Your task to perform on an android device: Go to privacy settings Image 0: 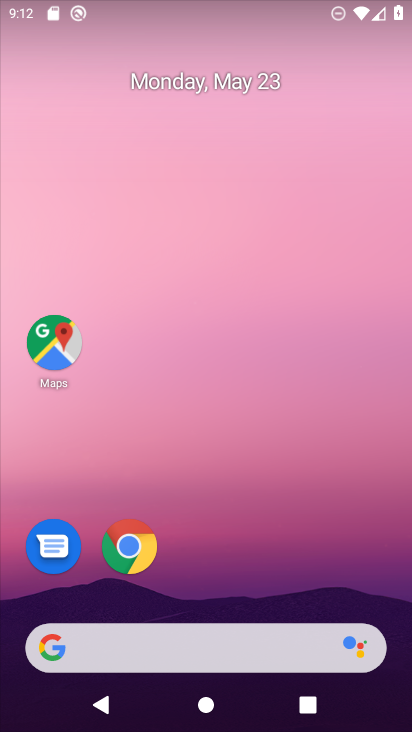
Step 0: drag from (315, 516) to (288, 67)
Your task to perform on an android device: Go to privacy settings Image 1: 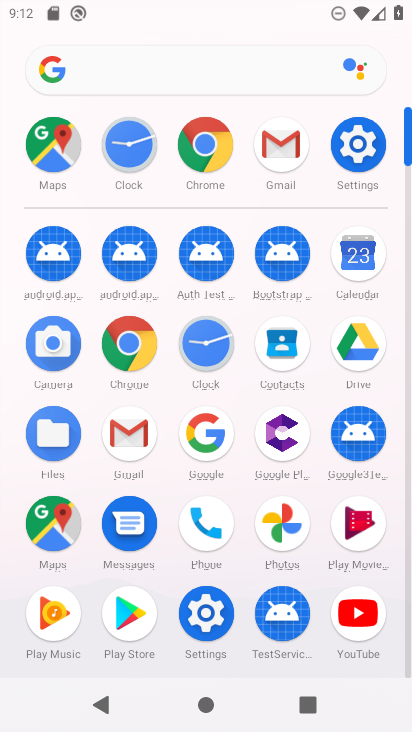
Step 1: click (358, 132)
Your task to perform on an android device: Go to privacy settings Image 2: 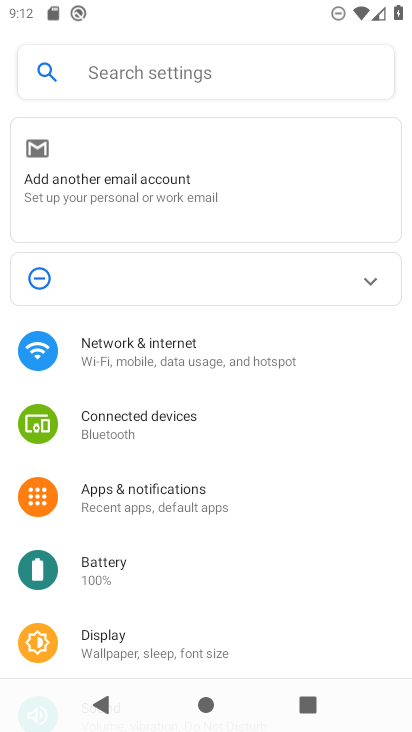
Step 2: drag from (206, 469) to (222, 80)
Your task to perform on an android device: Go to privacy settings Image 3: 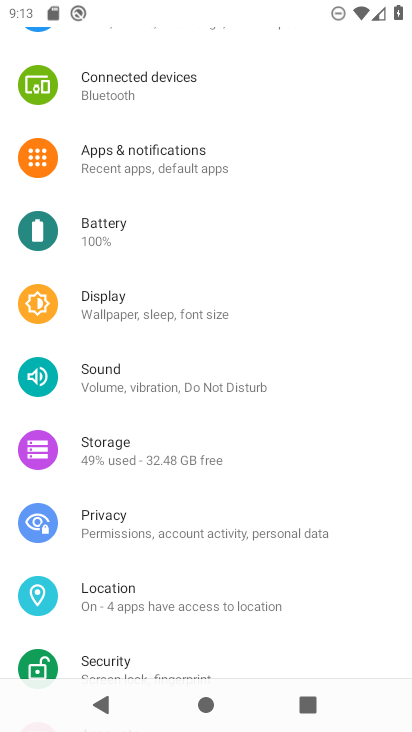
Step 3: click (195, 542)
Your task to perform on an android device: Go to privacy settings Image 4: 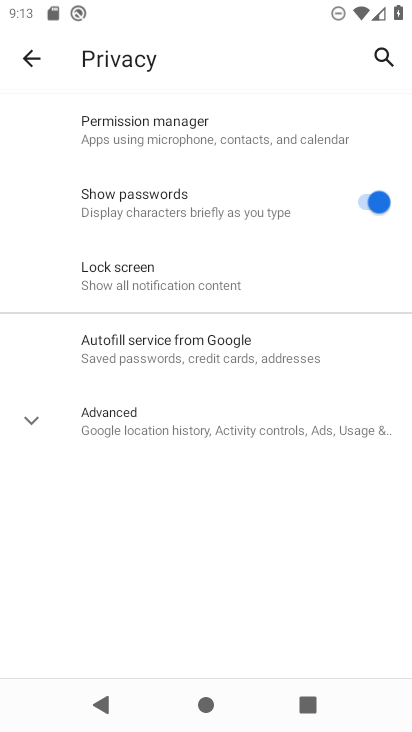
Step 4: task complete